Your task to perform on an android device: toggle sleep mode Image 0: 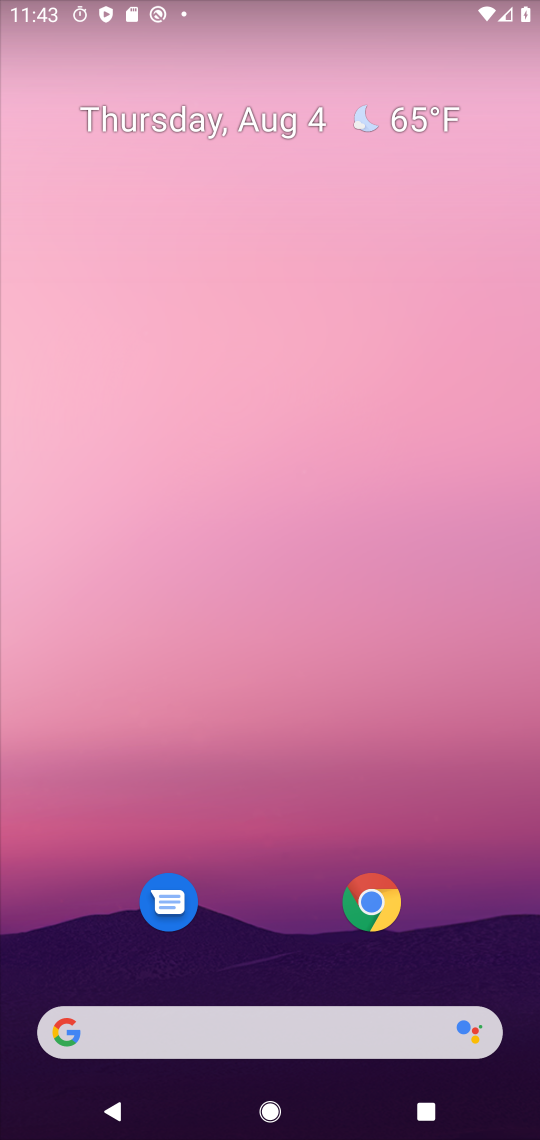
Step 0: press home button
Your task to perform on an android device: toggle sleep mode Image 1: 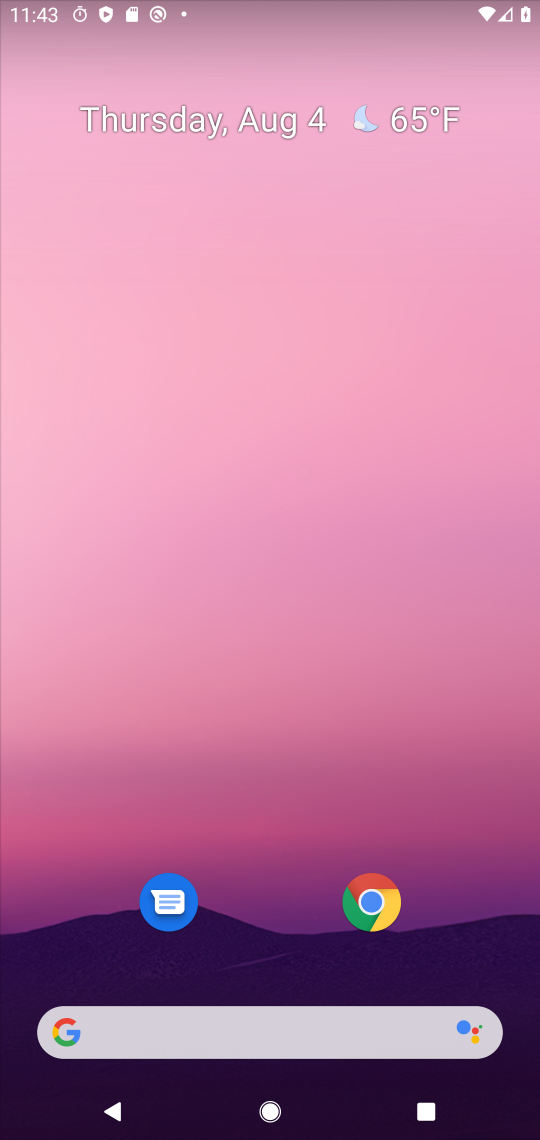
Step 1: drag from (330, 807) to (372, 167)
Your task to perform on an android device: toggle sleep mode Image 2: 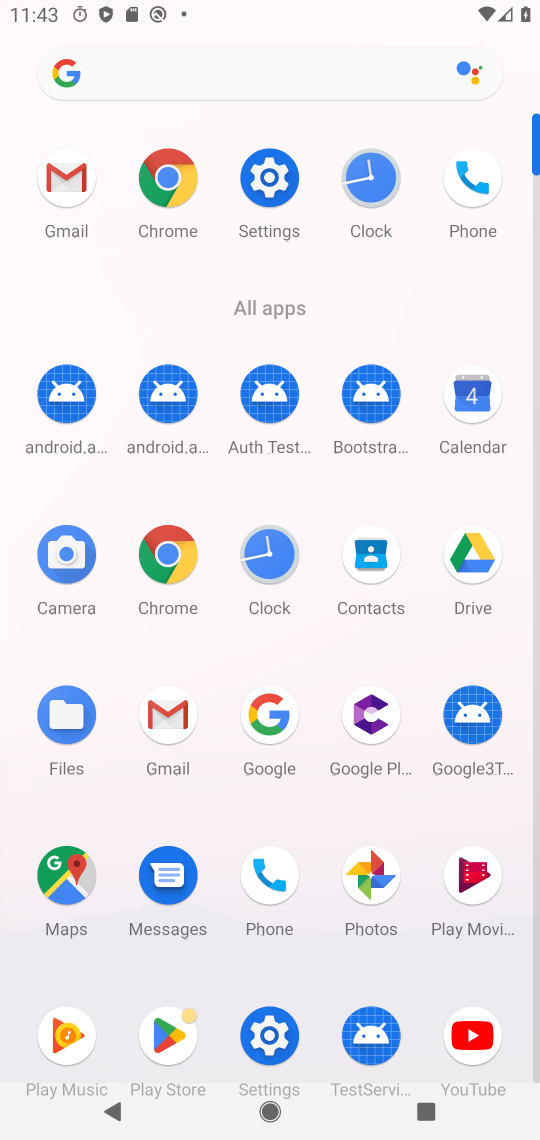
Step 2: click (265, 199)
Your task to perform on an android device: toggle sleep mode Image 3: 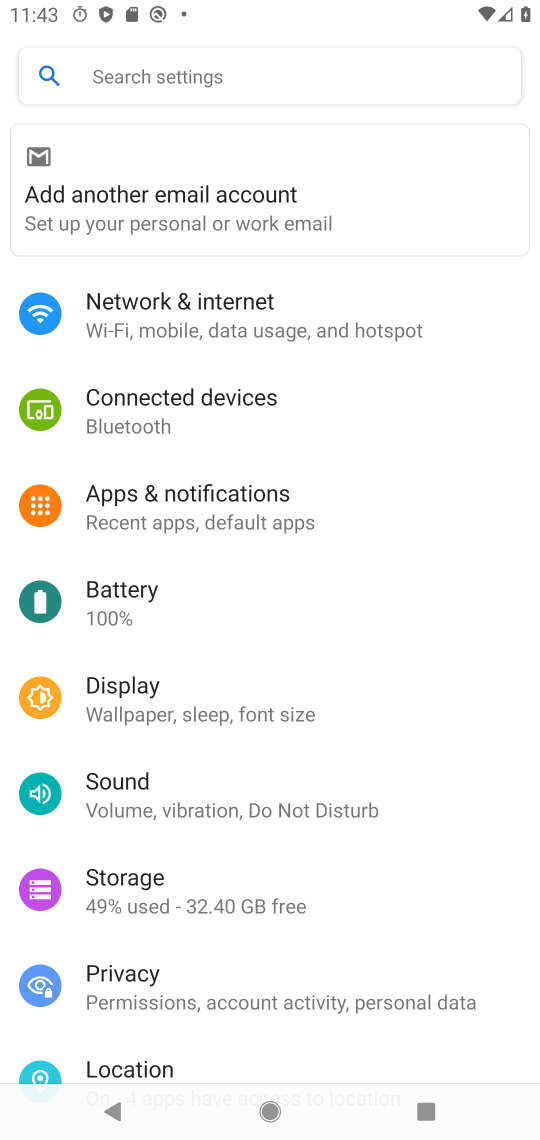
Step 3: click (182, 70)
Your task to perform on an android device: toggle sleep mode Image 4: 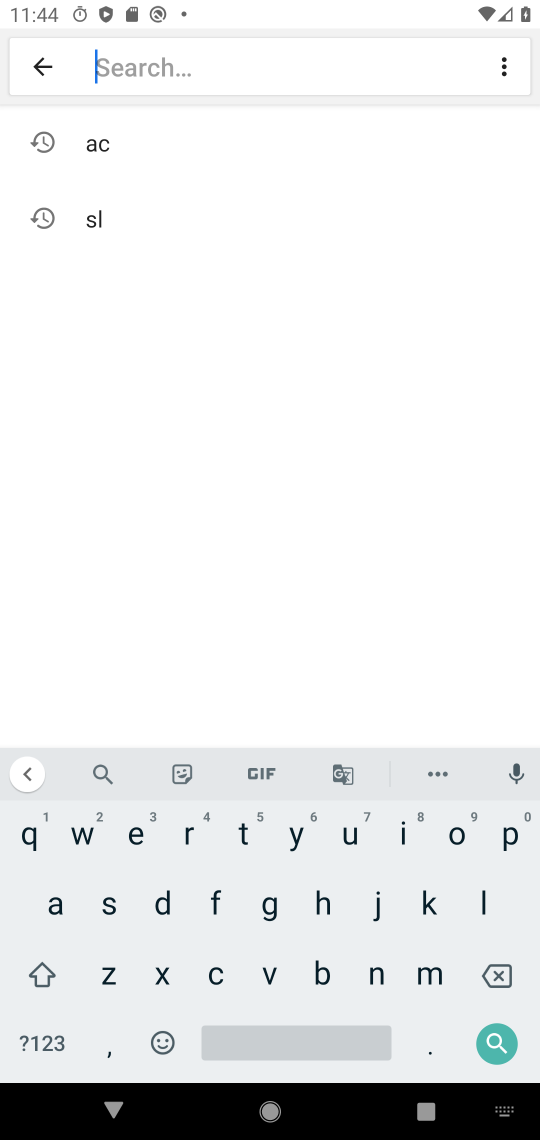
Step 4: click (124, 212)
Your task to perform on an android device: toggle sleep mode Image 5: 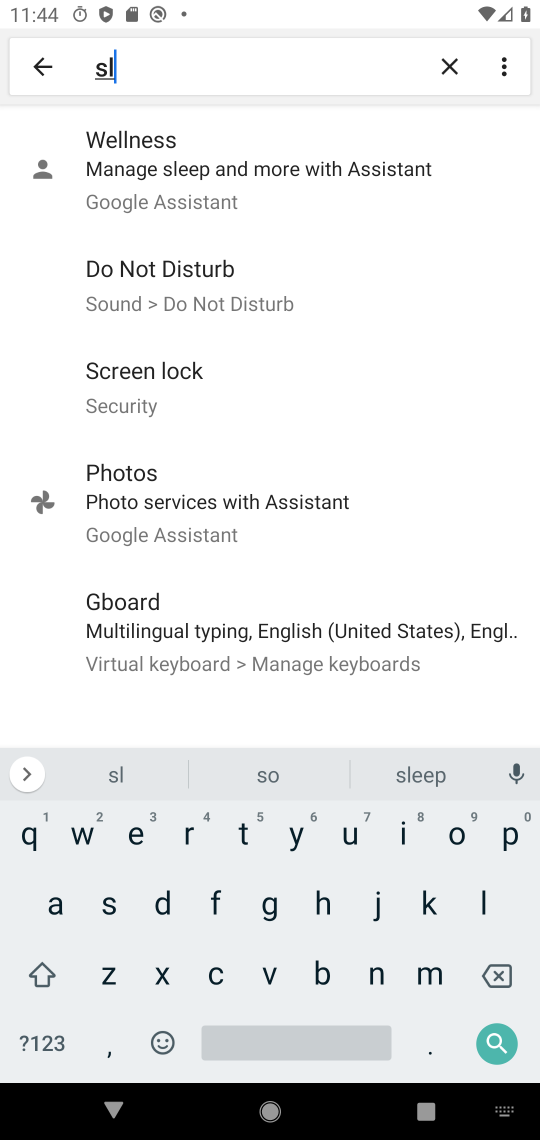
Step 5: click (173, 309)
Your task to perform on an android device: toggle sleep mode Image 6: 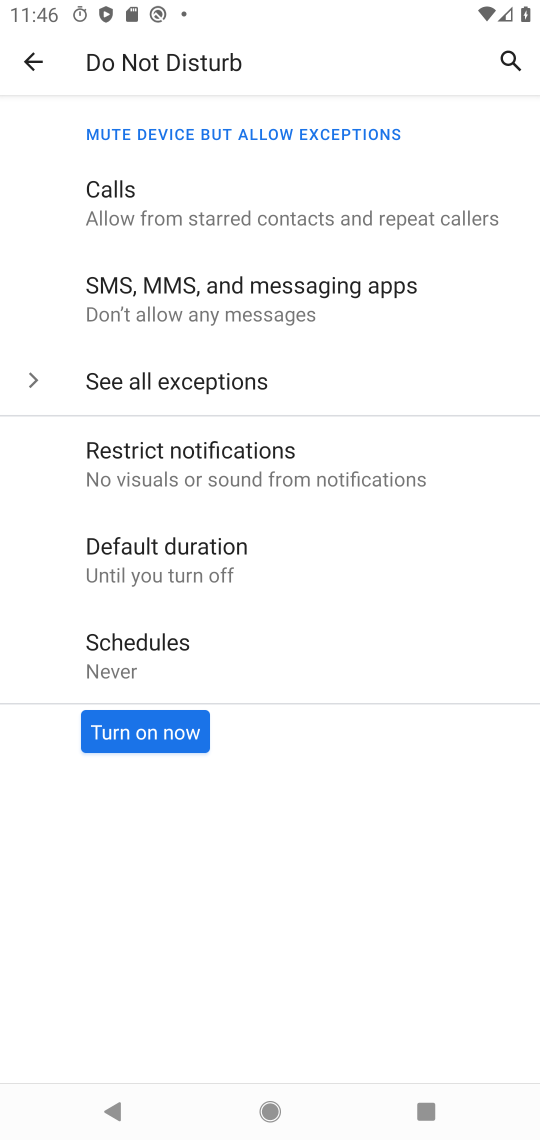
Step 6: task complete